Your task to perform on an android device: Search for sushi restaurants on Maps Image 0: 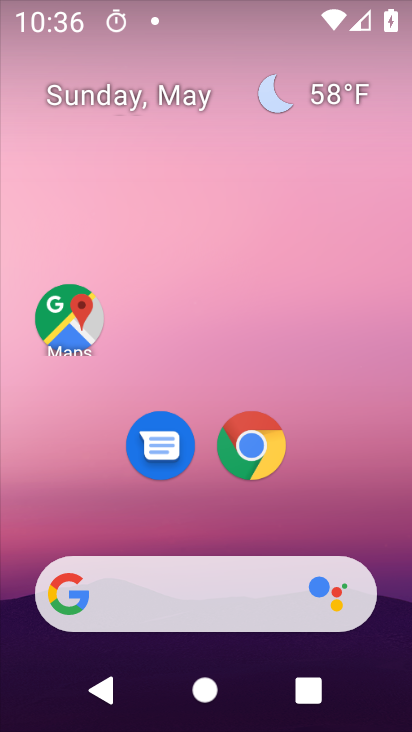
Step 0: drag from (261, 342) to (157, 15)
Your task to perform on an android device: Search for sushi restaurants on Maps Image 1: 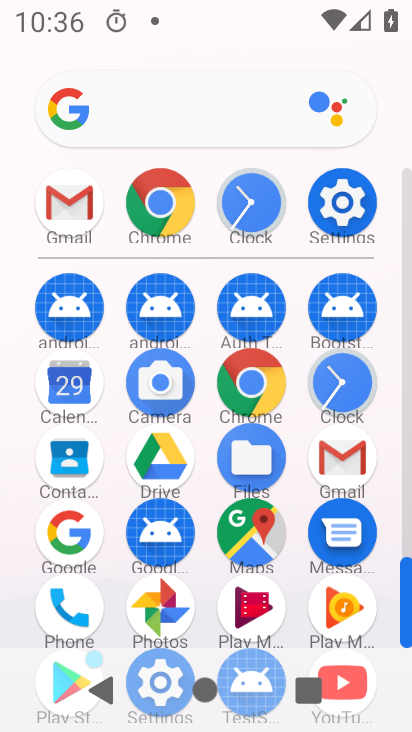
Step 1: drag from (20, 510) to (10, 192)
Your task to perform on an android device: Search for sushi restaurants on Maps Image 2: 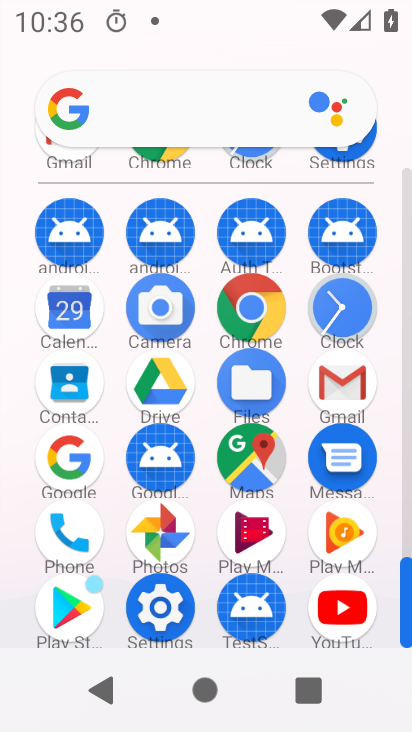
Step 2: click (247, 460)
Your task to perform on an android device: Search for sushi restaurants on Maps Image 3: 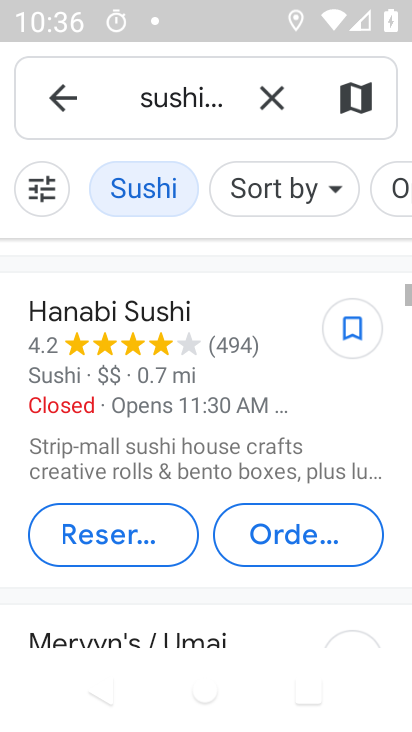
Step 3: click (262, 95)
Your task to perform on an android device: Search for sushi restaurants on Maps Image 4: 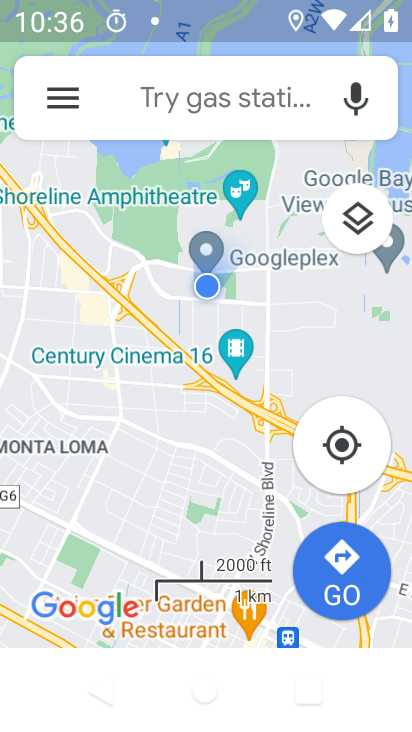
Step 4: click (139, 89)
Your task to perform on an android device: Search for sushi restaurants on Maps Image 5: 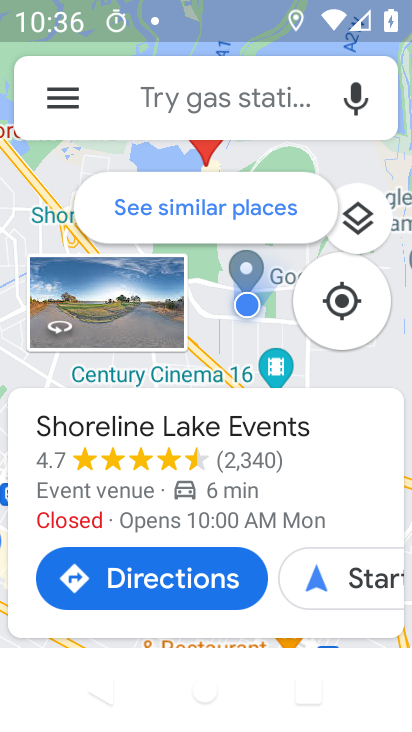
Step 5: click (184, 108)
Your task to perform on an android device: Search for sushi restaurants on Maps Image 6: 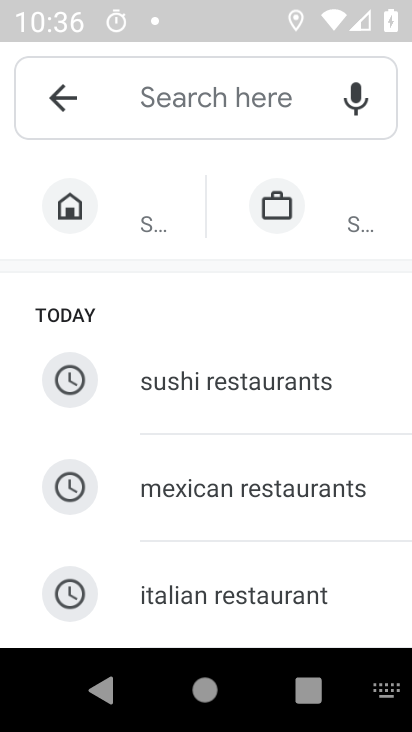
Step 6: click (216, 383)
Your task to perform on an android device: Search for sushi restaurants on Maps Image 7: 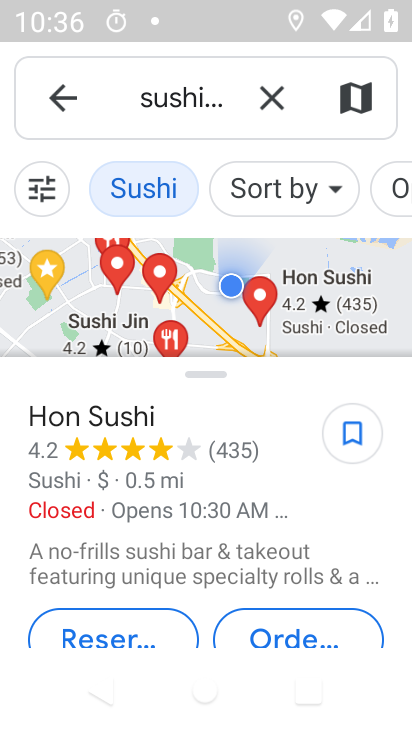
Step 7: task complete